Your task to perform on an android device: see creations saved in the google photos Image 0: 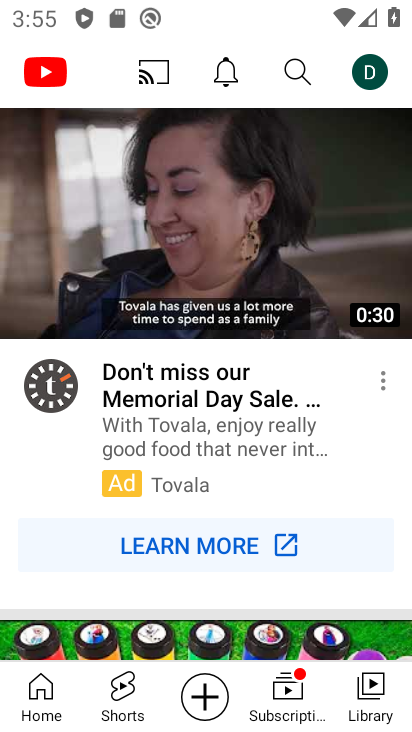
Step 0: press home button
Your task to perform on an android device: see creations saved in the google photos Image 1: 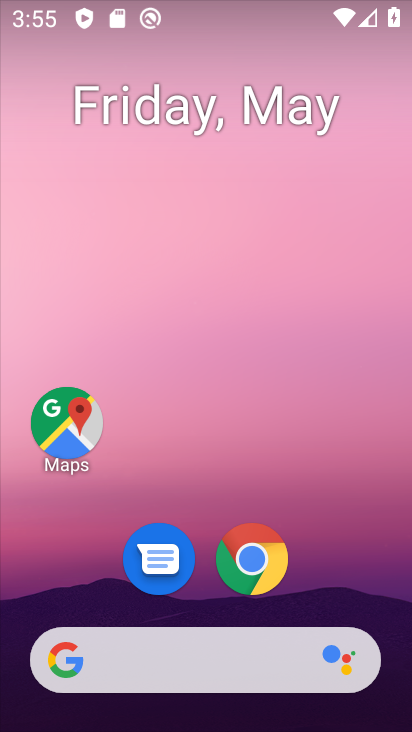
Step 1: drag from (309, 385) to (240, 50)
Your task to perform on an android device: see creations saved in the google photos Image 2: 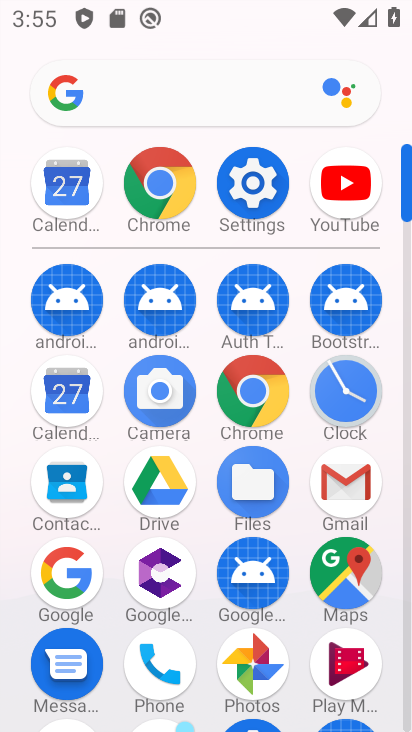
Step 2: click (244, 685)
Your task to perform on an android device: see creations saved in the google photos Image 3: 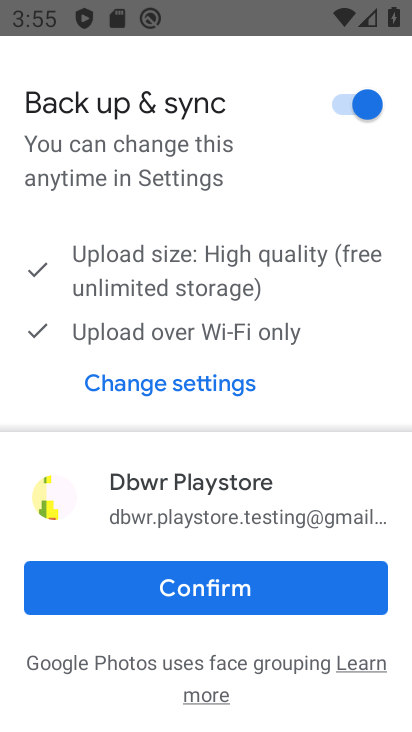
Step 3: click (229, 593)
Your task to perform on an android device: see creations saved in the google photos Image 4: 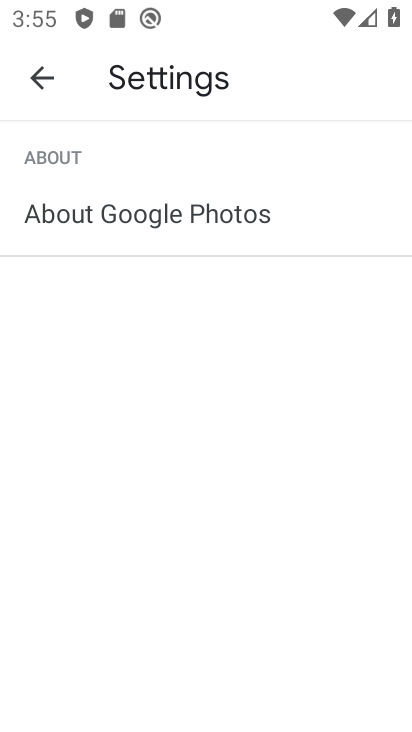
Step 4: click (31, 91)
Your task to perform on an android device: see creations saved in the google photos Image 5: 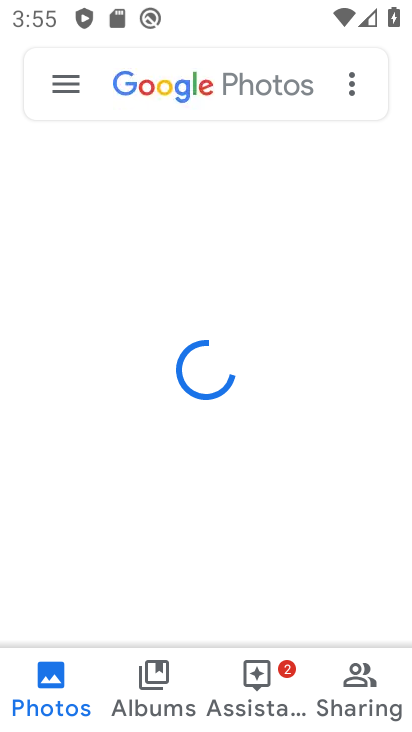
Step 5: click (45, 85)
Your task to perform on an android device: see creations saved in the google photos Image 6: 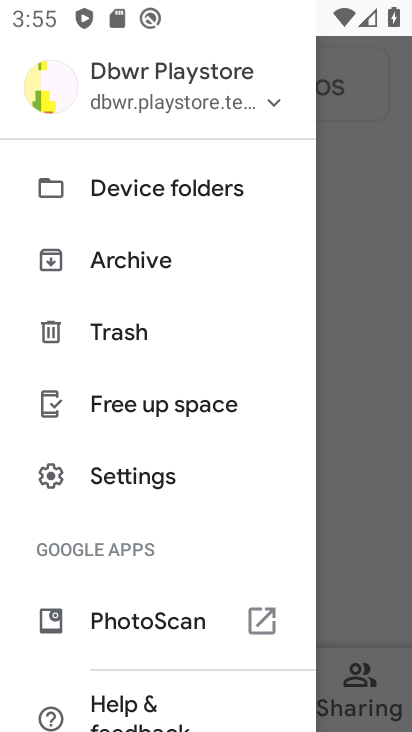
Step 6: drag from (133, 561) to (118, 208)
Your task to perform on an android device: see creations saved in the google photos Image 7: 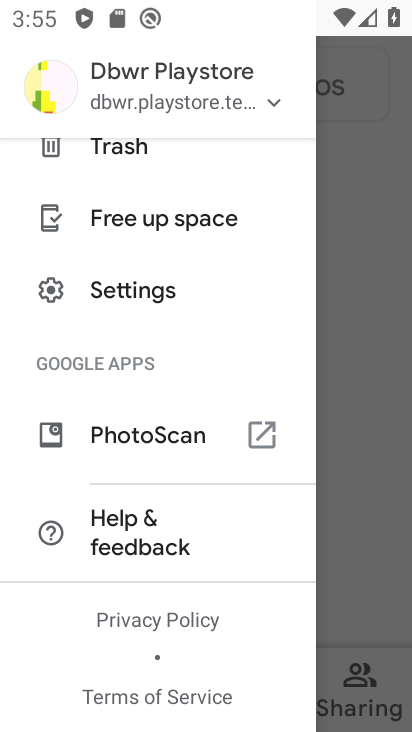
Step 7: click (360, 281)
Your task to perform on an android device: see creations saved in the google photos Image 8: 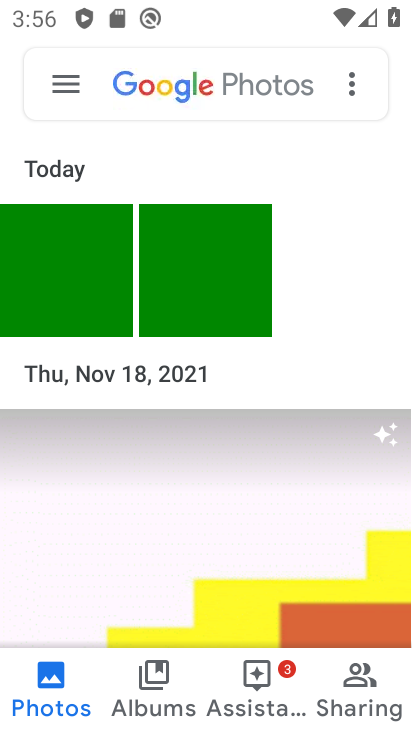
Step 8: task complete